Your task to perform on an android device: Open the Play Movies app and select the watchlist tab. Image 0: 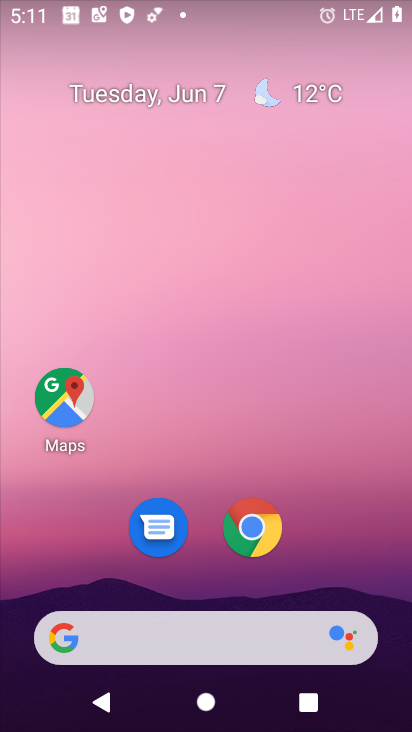
Step 0: drag from (356, 538) to (281, 34)
Your task to perform on an android device: Open the Play Movies app and select the watchlist tab. Image 1: 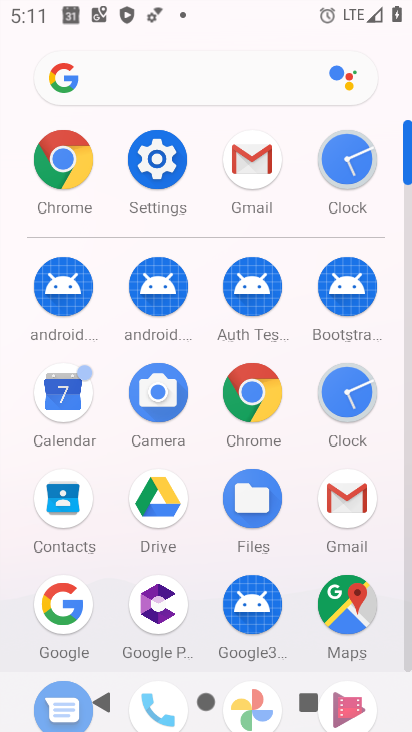
Step 1: drag from (207, 469) to (238, 167)
Your task to perform on an android device: Open the Play Movies app and select the watchlist tab. Image 2: 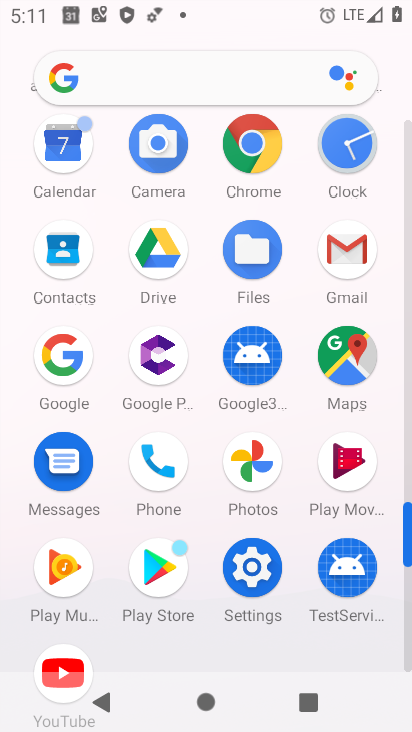
Step 2: click (350, 463)
Your task to perform on an android device: Open the Play Movies app and select the watchlist tab. Image 3: 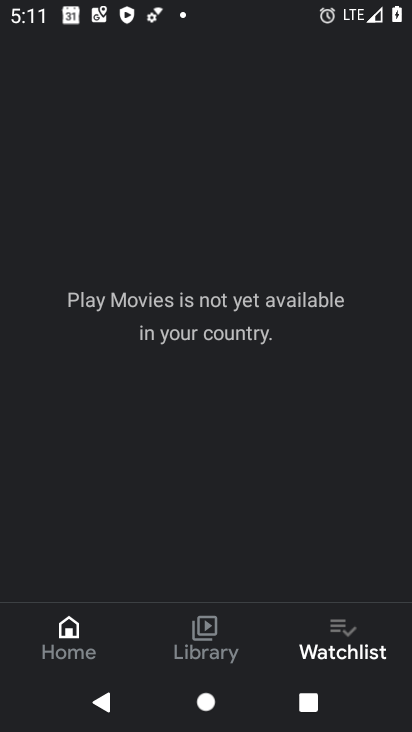
Step 3: click (337, 633)
Your task to perform on an android device: Open the Play Movies app and select the watchlist tab. Image 4: 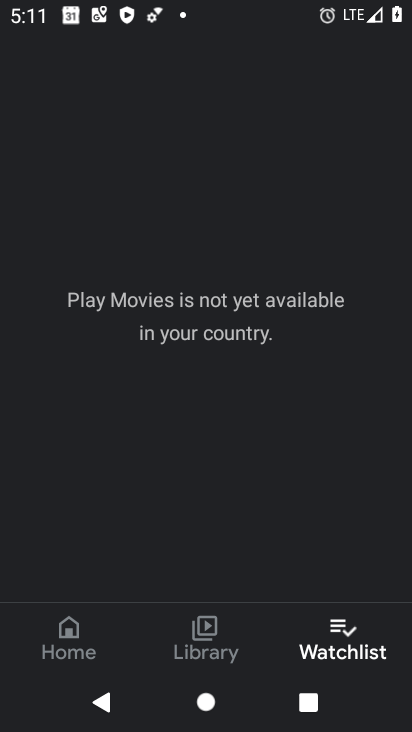
Step 4: task complete